Your task to perform on an android device: turn off sleep mode Image 0: 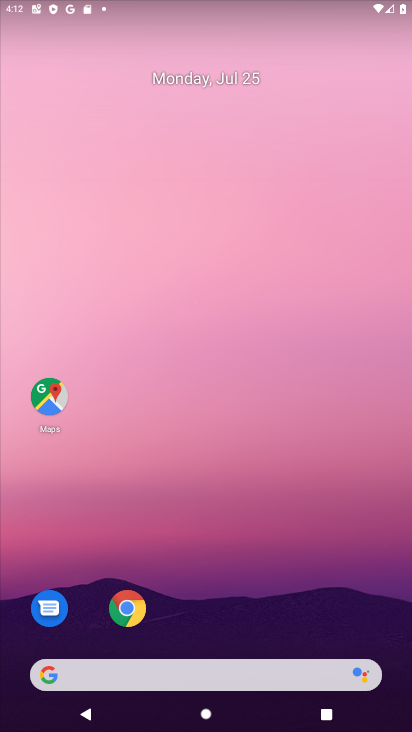
Step 0: press home button
Your task to perform on an android device: turn off sleep mode Image 1: 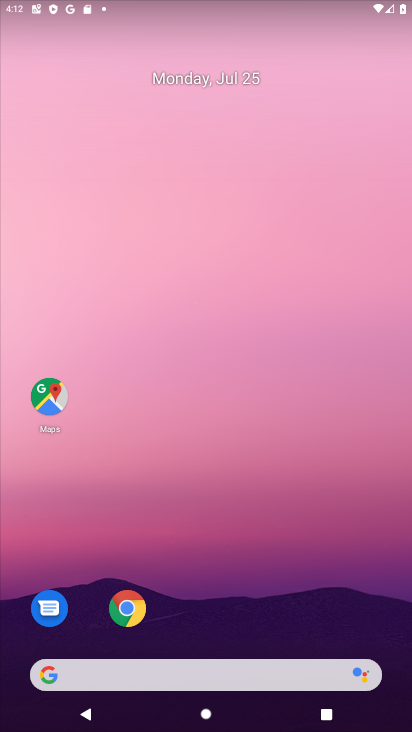
Step 1: drag from (225, 639) to (249, 22)
Your task to perform on an android device: turn off sleep mode Image 2: 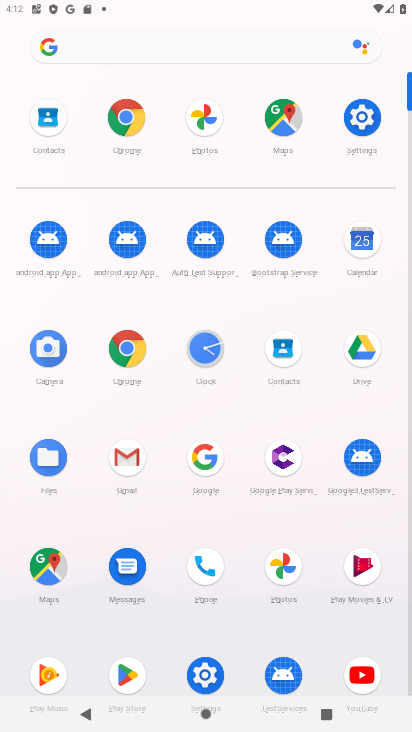
Step 2: click (361, 114)
Your task to perform on an android device: turn off sleep mode Image 3: 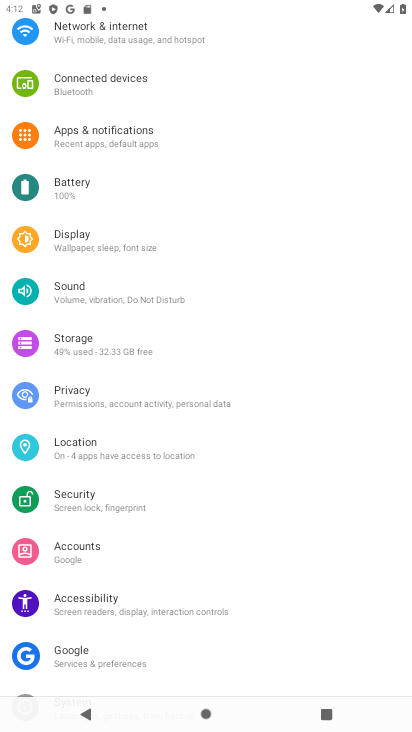
Step 3: click (99, 239)
Your task to perform on an android device: turn off sleep mode Image 4: 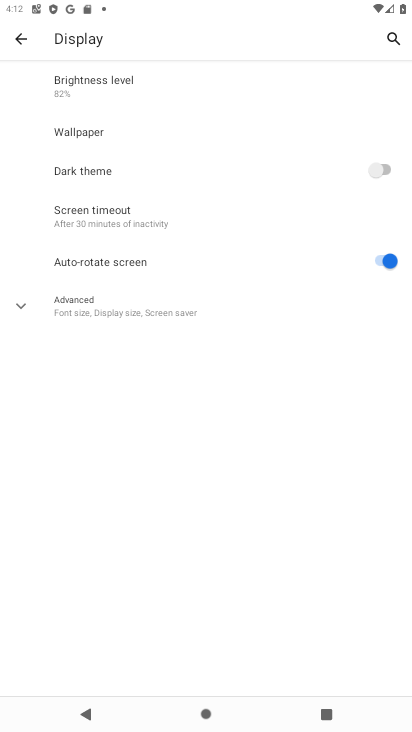
Step 4: click (22, 300)
Your task to perform on an android device: turn off sleep mode Image 5: 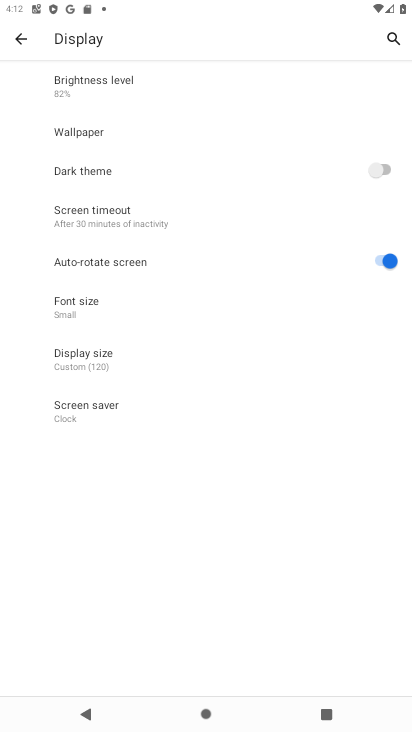
Step 5: task complete